Your task to perform on an android device: turn on improve location accuracy Image 0: 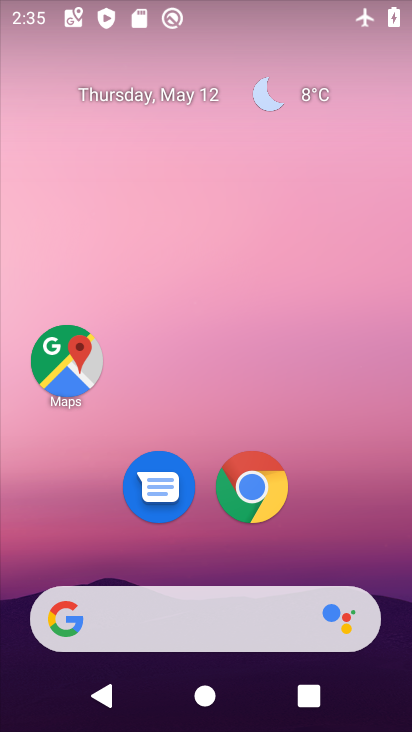
Step 0: drag from (341, 415) to (335, 157)
Your task to perform on an android device: turn on improve location accuracy Image 1: 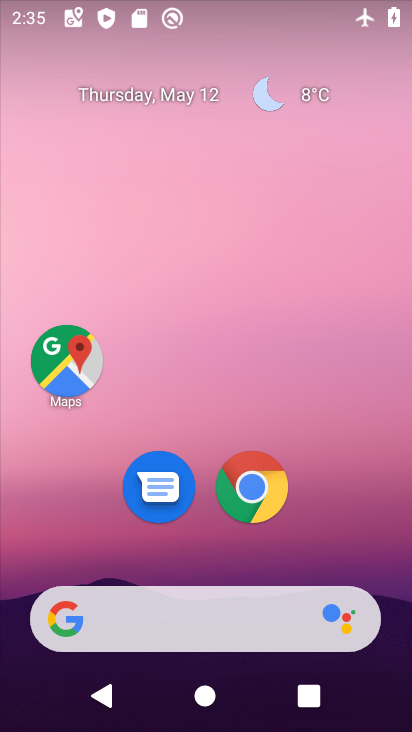
Step 1: drag from (324, 529) to (266, 79)
Your task to perform on an android device: turn on improve location accuracy Image 2: 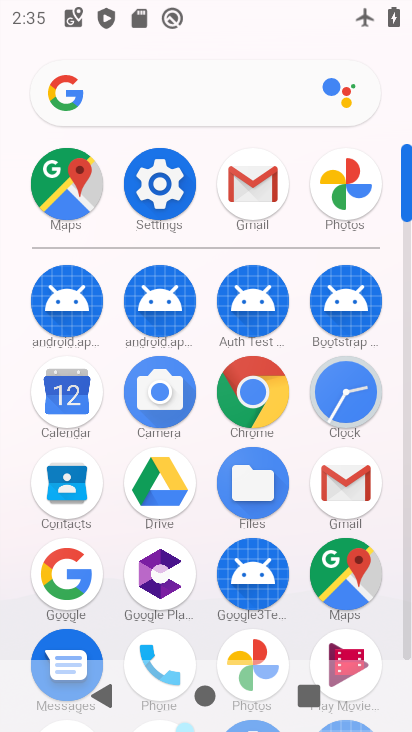
Step 2: click (153, 171)
Your task to perform on an android device: turn on improve location accuracy Image 3: 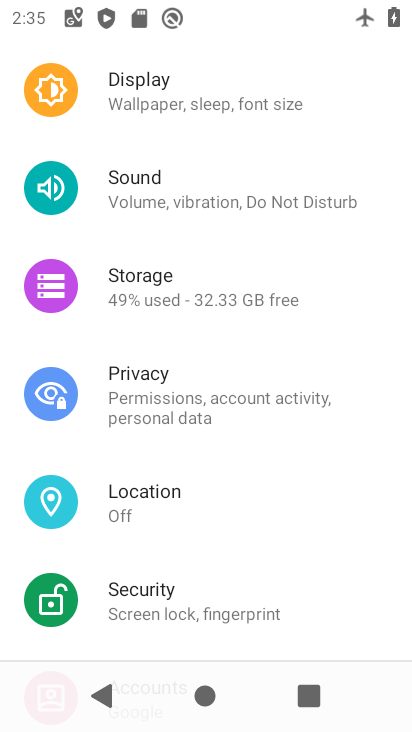
Step 3: drag from (154, 146) to (168, 520)
Your task to perform on an android device: turn on improve location accuracy Image 4: 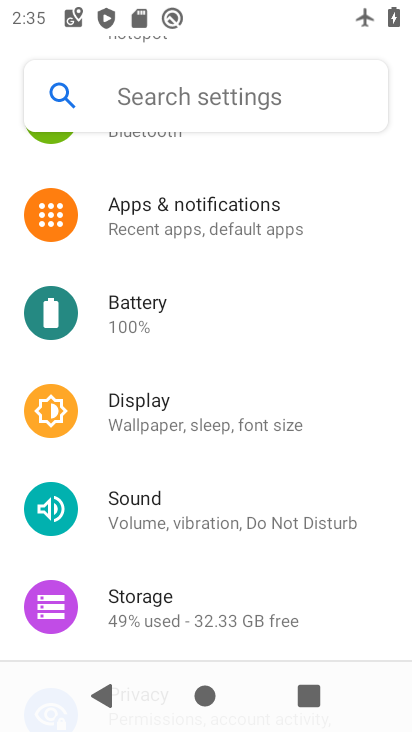
Step 4: drag from (161, 234) to (243, 591)
Your task to perform on an android device: turn on improve location accuracy Image 5: 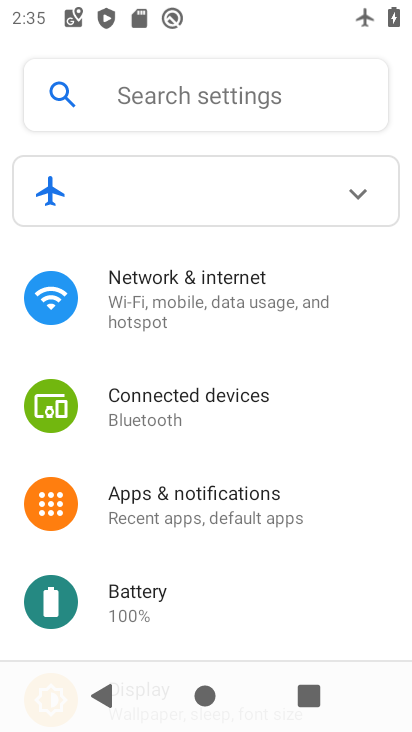
Step 5: drag from (204, 396) to (266, 95)
Your task to perform on an android device: turn on improve location accuracy Image 6: 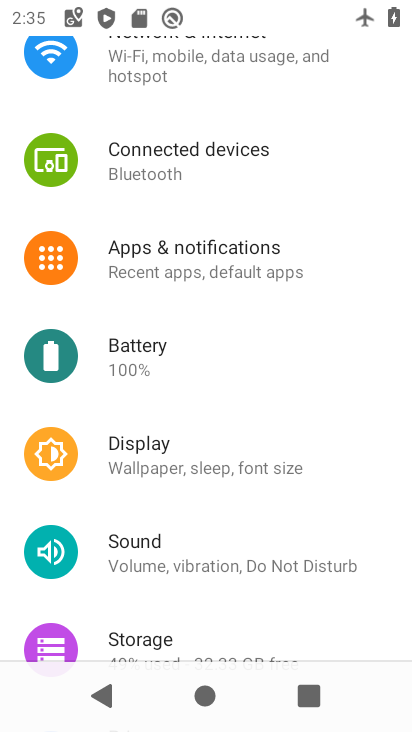
Step 6: drag from (260, 495) to (264, 185)
Your task to perform on an android device: turn on improve location accuracy Image 7: 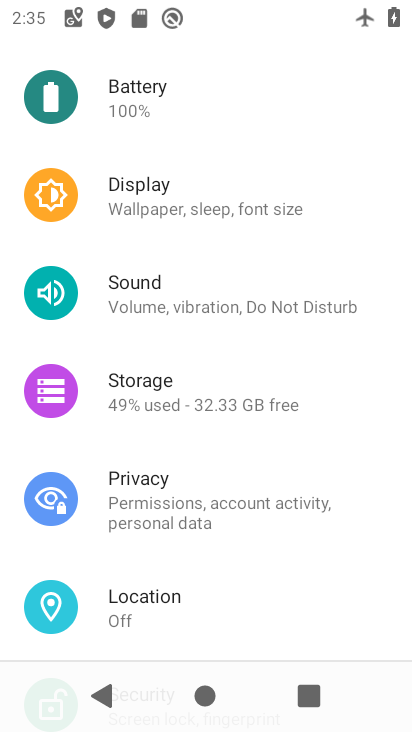
Step 7: click (126, 616)
Your task to perform on an android device: turn on improve location accuracy Image 8: 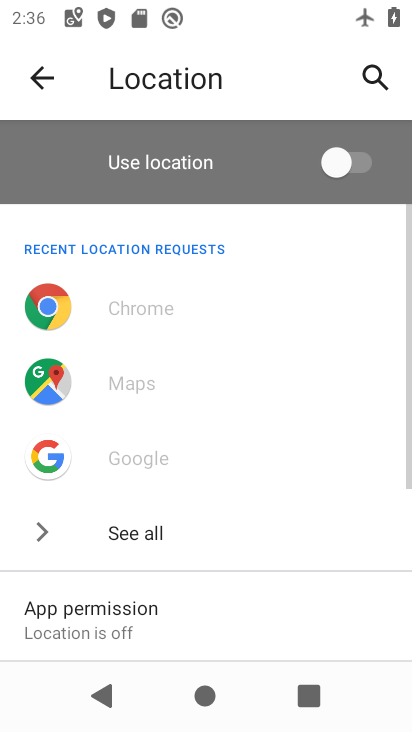
Step 8: drag from (316, 531) to (328, 5)
Your task to perform on an android device: turn on improve location accuracy Image 9: 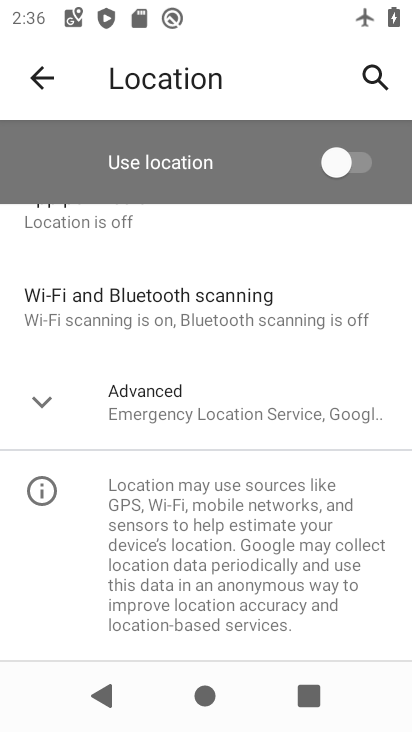
Step 9: click (163, 385)
Your task to perform on an android device: turn on improve location accuracy Image 10: 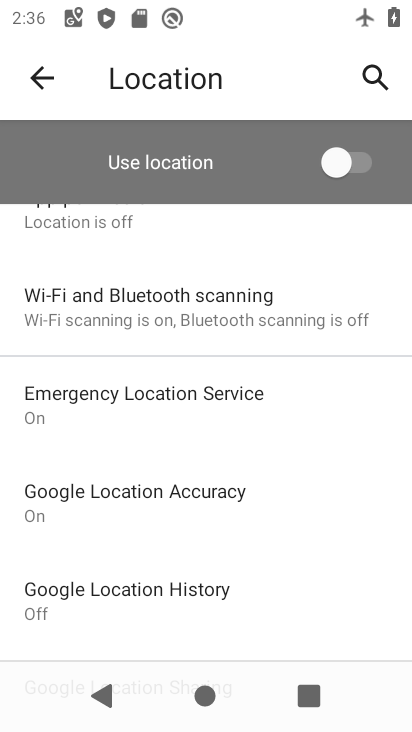
Step 10: click (204, 498)
Your task to perform on an android device: turn on improve location accuracy Image 11: 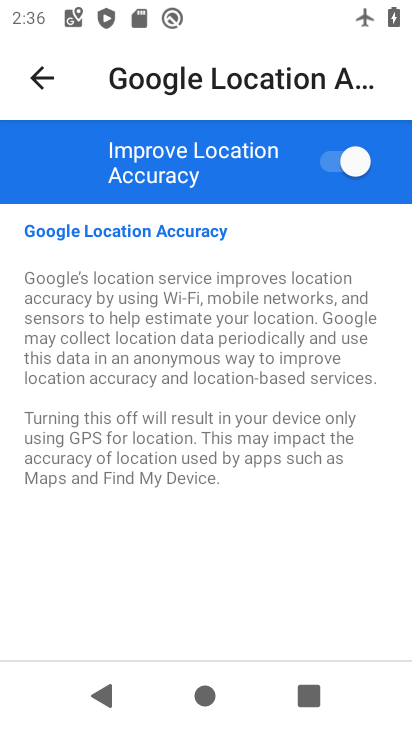
Step 11: task complete